Your task to perform on an android device: Open the phone app and click the voicemail tab. Image 0: 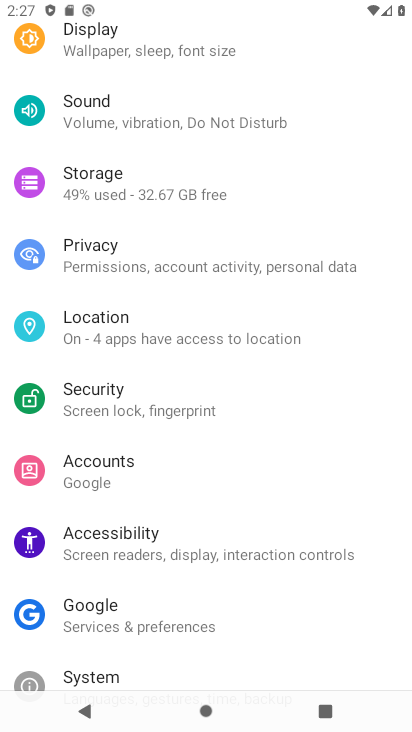
Step 0: press home button
Your task to perform on an android device: Open the phone app and click the voicemail tab. Image 1: 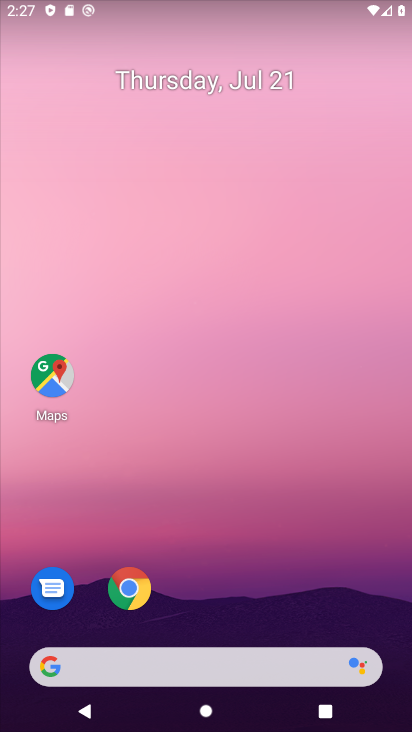
Step 1: drag from (277, 541) to (173, 3)
Your task to perform on an android device: Open the phone app and click the voicemail tab. Image 2: 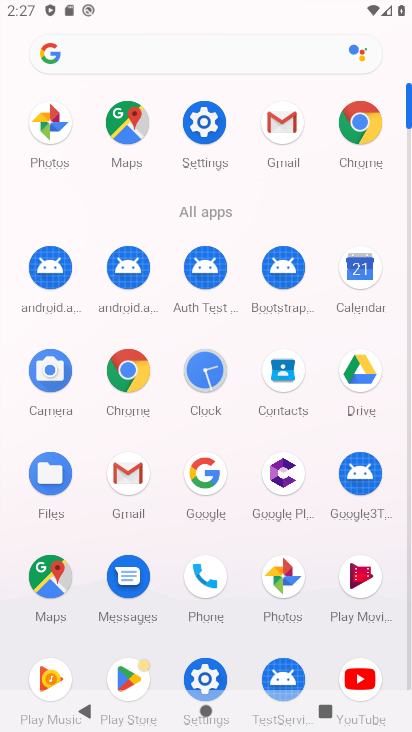
Step 2: click (200, 589)
Your task to perform on an android device: Open the phone app and click the voicemail tab. Image 3: 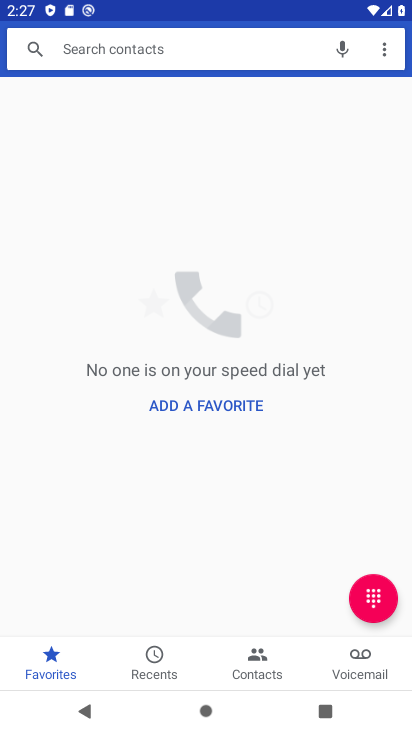
Step 3: click (360, 654)
Your task to perform on an android device: Open the phone app and click the voicemail tab. Image 4: 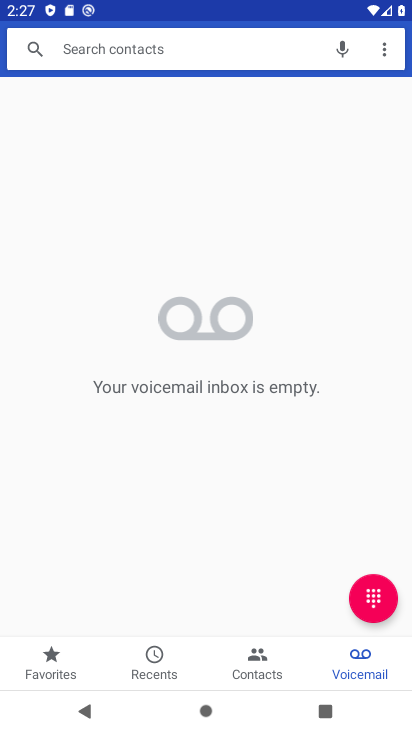
Step 4: task complete